Your task to perform on an android device: find which apps use the phone's location Image 0: 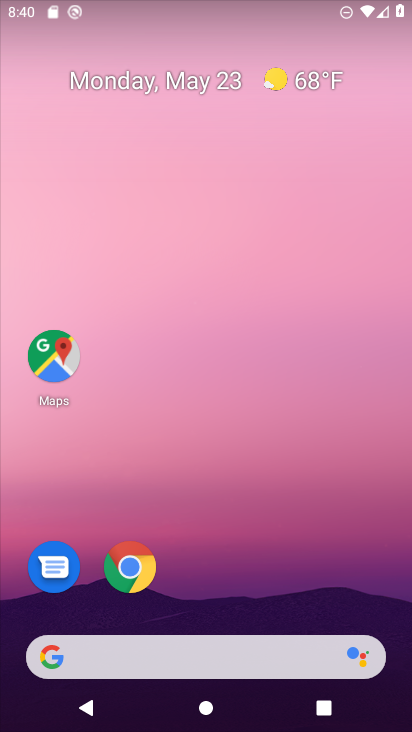
Step 0: drag from (202, 614) to (244, 52)
Your task to perform on an android device: find which apps use the phone's location Image 1: 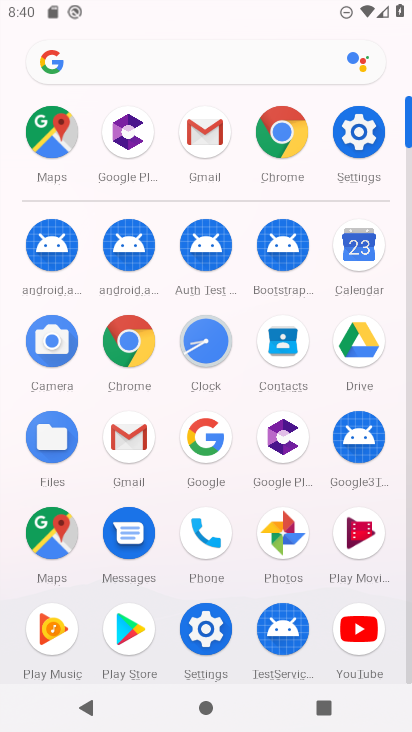
Step 1: click (350, 132)
Your task to perform on an android device: find which apps use the phone's location Image 2: 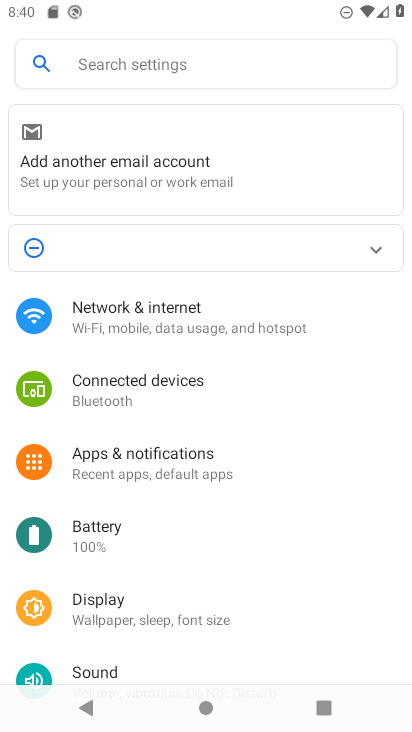
Step 2: drag from (187, 651) to (264, 72)
Your task to perform on an android device: find which apps use the phone's location Image 3: 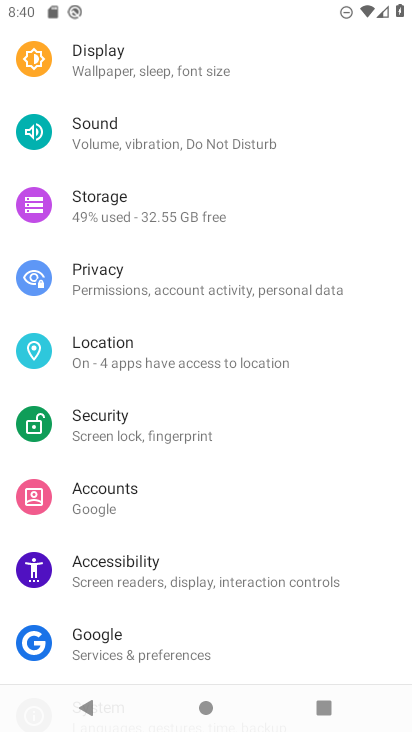
Step 3: click (144, 362)
Your task to perform on an android device: find which apps use the phone's location Image 4: 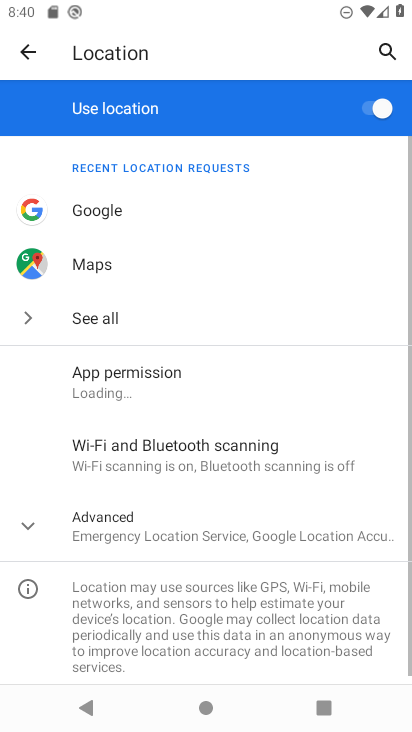
Step 4: drag from (240, 576) to (293, 199)
Your task to perform on an android device: find which apps use the phone's location Image 5: 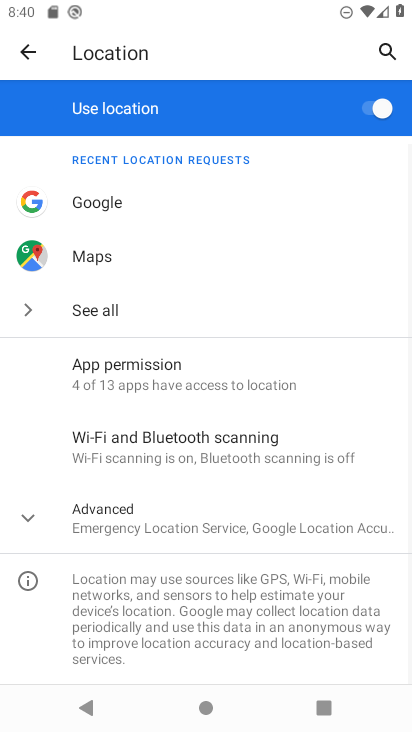
Step 5: click (204, 378)
Your task to perform on an android device: find which apps use the phone's location Image 6: 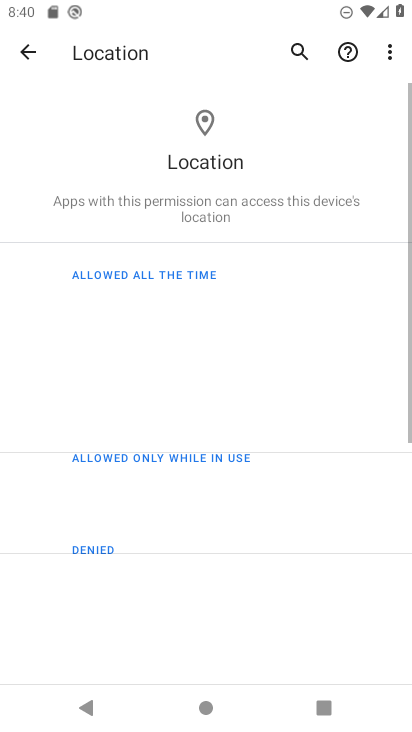
Step 6: task complete